Your task to perform on an android device: turn notification dots off Image 0: 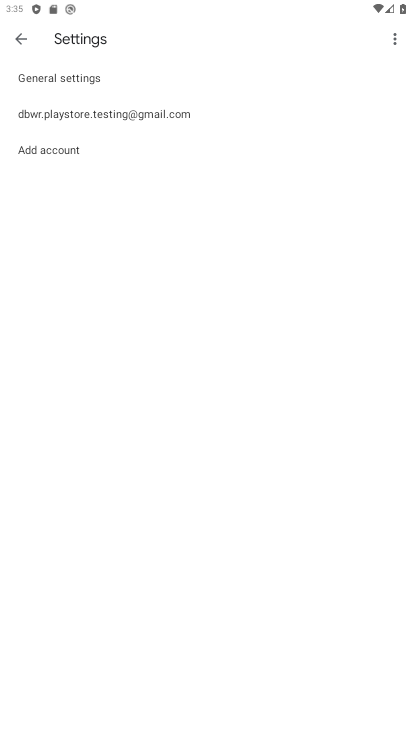
Step 0: press home button
Your task to perform on an android device: turn notification dots off Image 1: 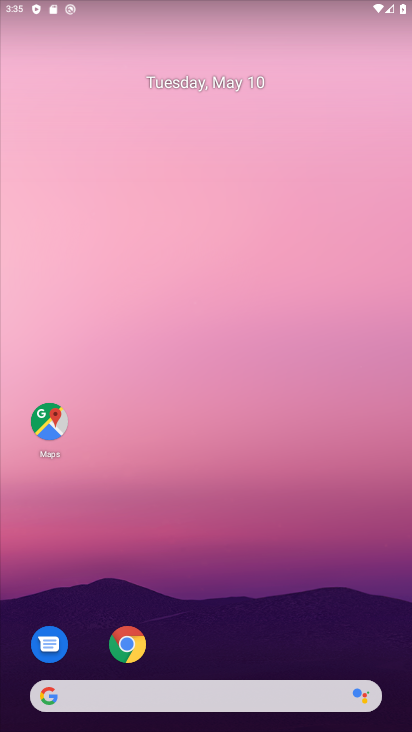
Step 1: drag from (197, 647) to (223, 181)
Your task to perform on an android device: turn notification dots off Image 2: 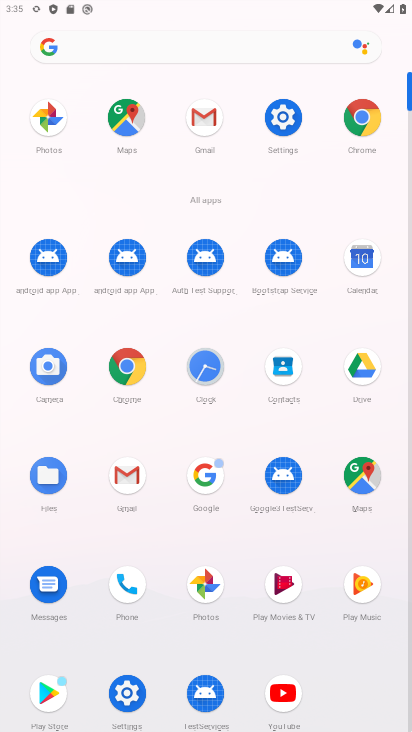
Step 2: click (283, 121)
Your task to perform on an android device: turn notification dots off Image 3: 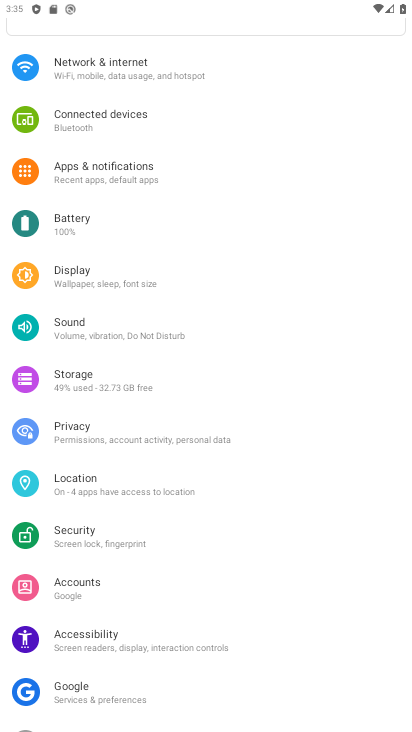
Step 3: click (148, 174)
Your task to perform on an android device: turn notification dots off Image 4: 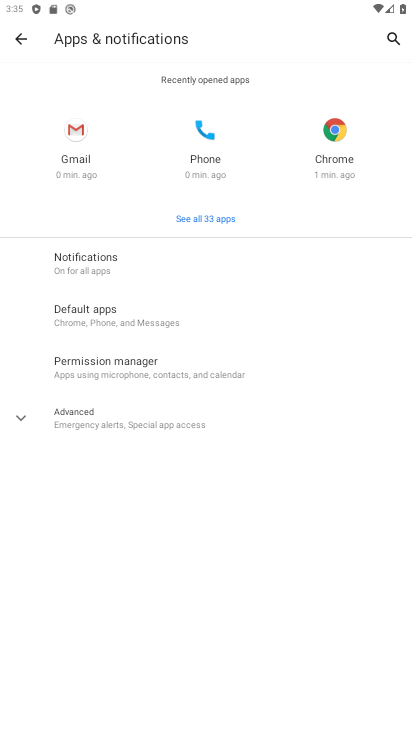
Step 4: click (129, 263)
Your task to perform on an android device: turn notification dots off Image 5: 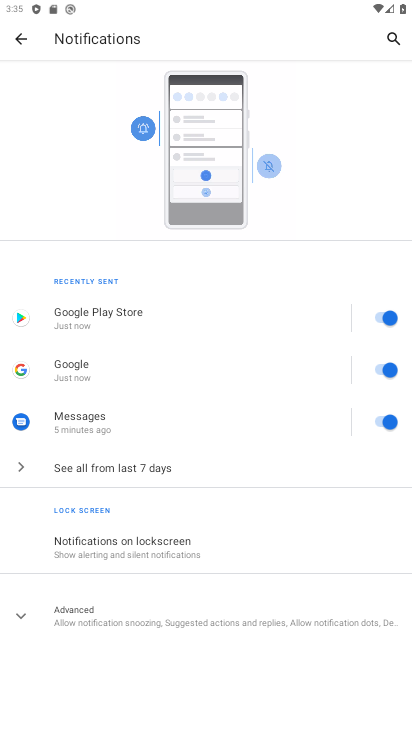
Step 5: click (120, 603)
Your task to perform on an android device: turn notification dots off Image 6: 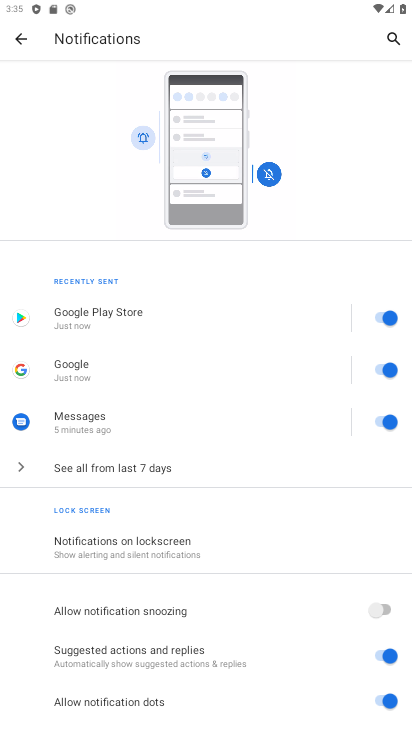
Step 6: click (383, 695)
Your task to perform on an android device: turn notification dots off Image 7: 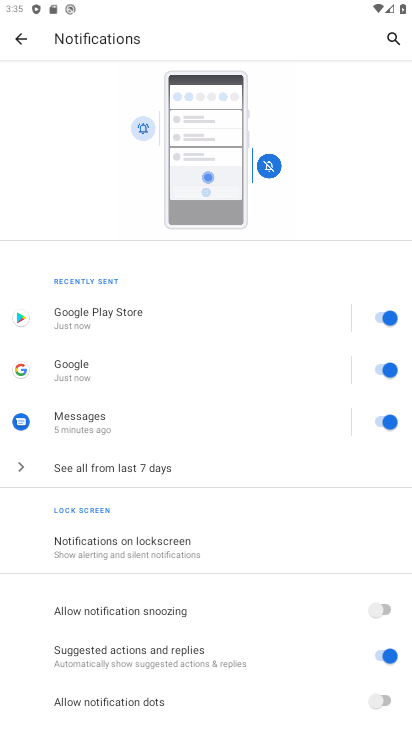
Step 7: task complete